Your task to perform on an android device: Do I have any events tomorrow? Image 0: 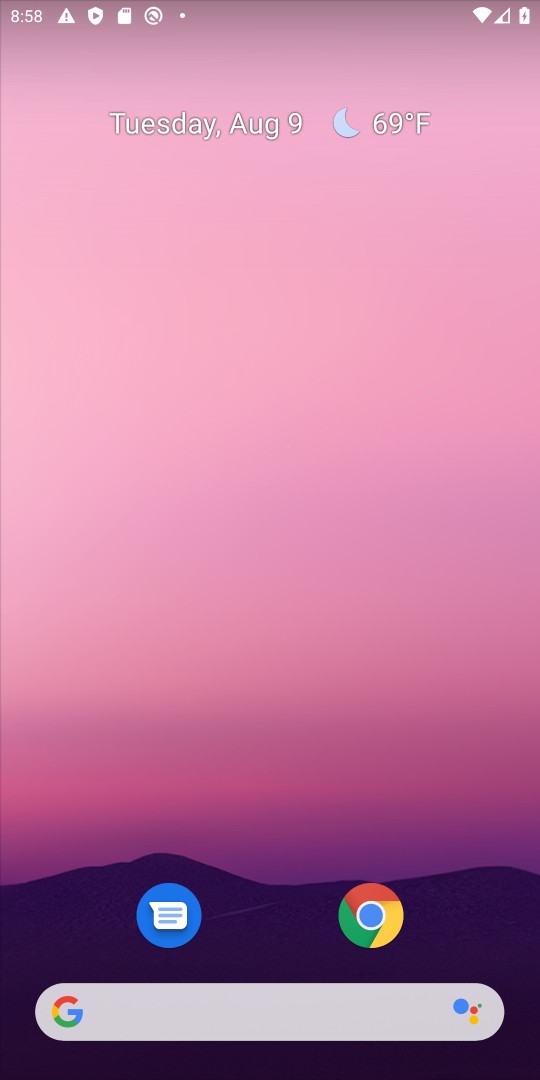
Step 0: drag from (245, 976) to (366, 82)
Your task to perform on an android device: Do I have any events tomorrow? Image 1: 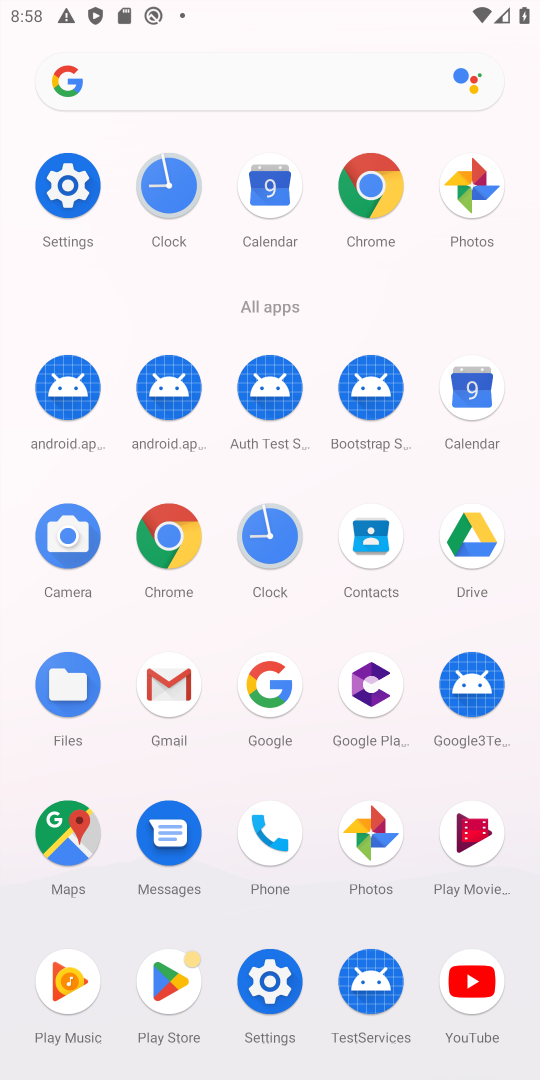
Step 1: click (456, 398)
Your task to perform on an android device: Do I have any events tomorrow? Image 2: 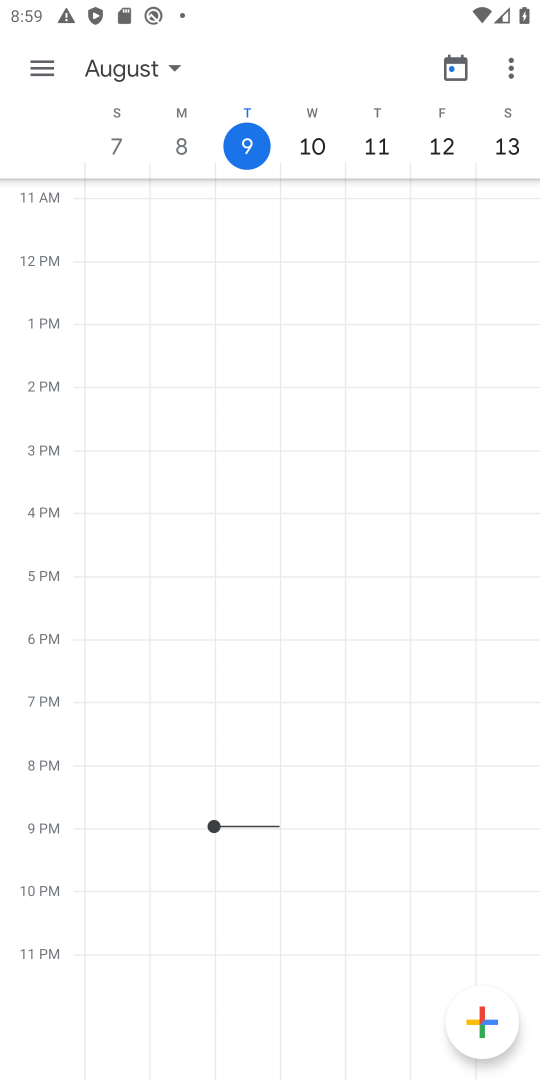
Step 2: click (48, 63)
Your task to perform on an android device: Do I have any events tomorrow? Image 3: 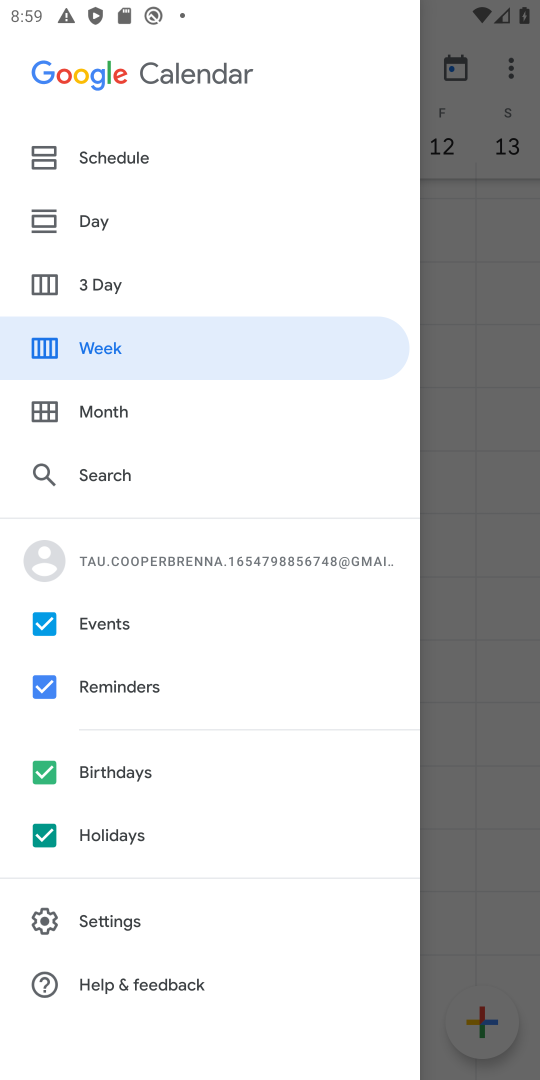
Step 3: click (96, 223)
Your task to perform on an android device: Do I have any events tomorrow? Image 4: 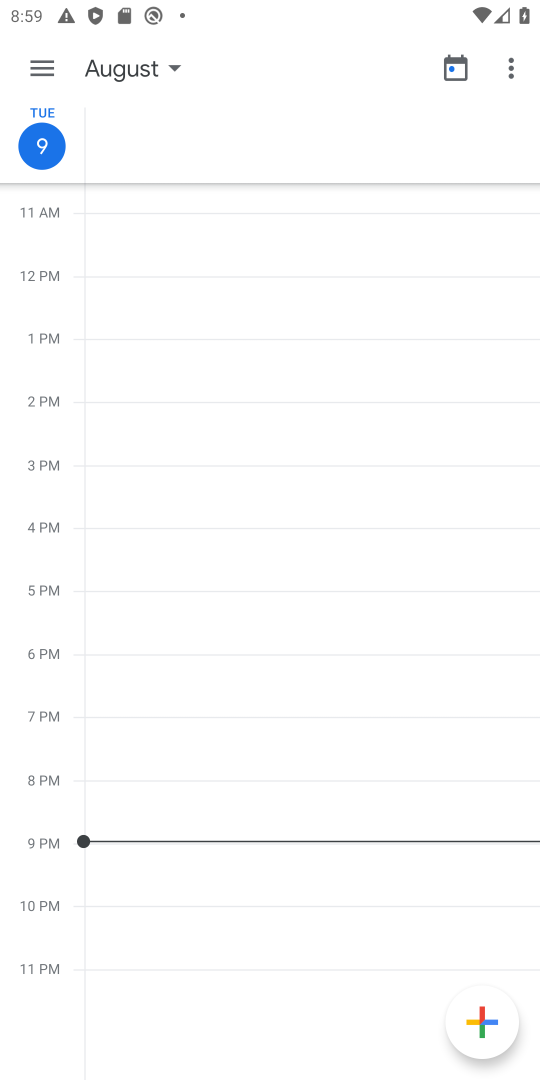
Step 4: click (46, 66)
Your task to perform on an android device: Do I have any events tomorrow? Image 5: 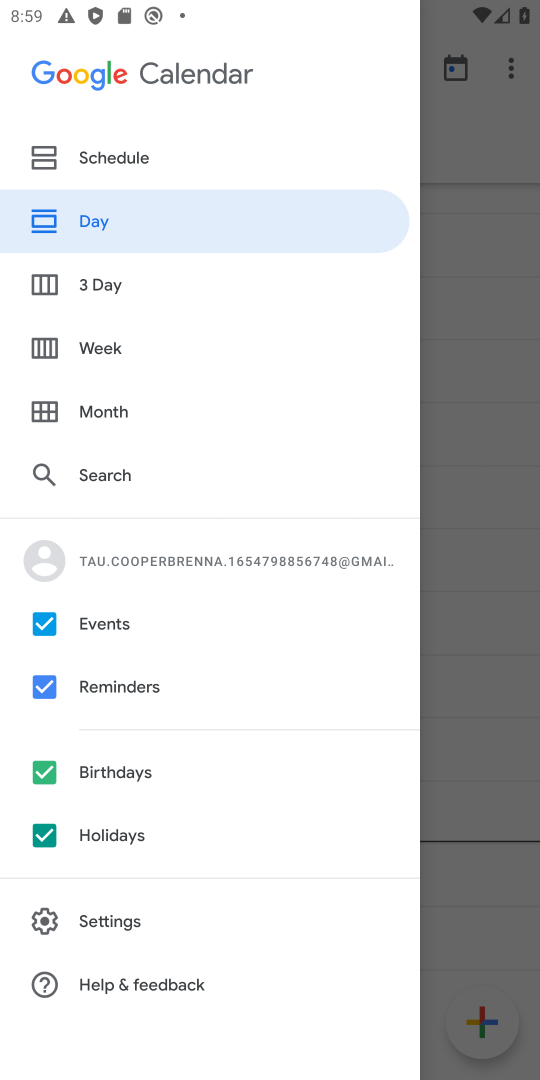
Step 5: click (112, 152)
Your task to perform on an android device: Do I have any events tomorrow? Image 6: 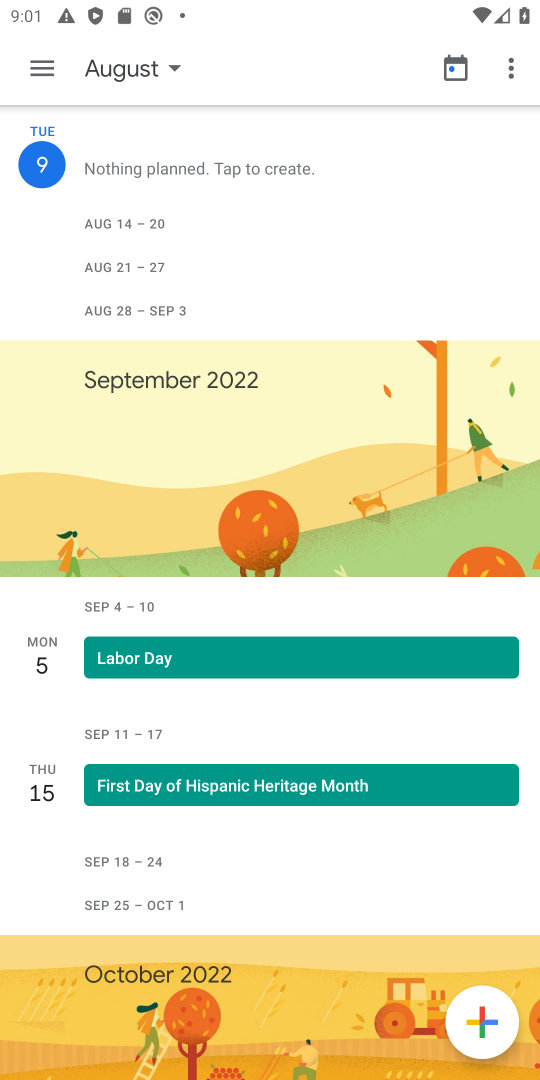
Step 6: task complete